Your task to perform on an android device: all mails in gmail Image 0: 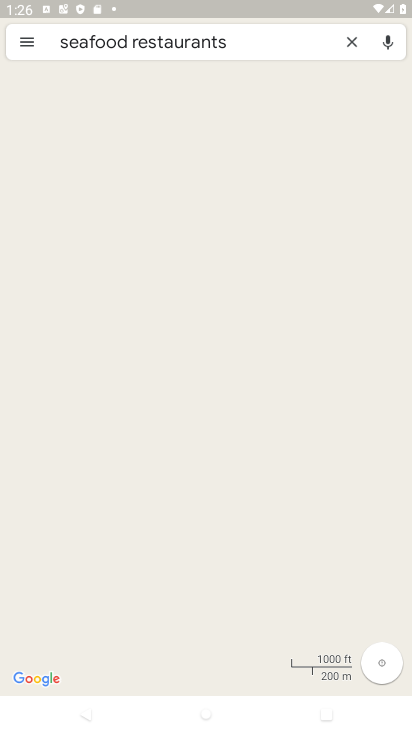
Step 0: press home button
Your task to perform on an android device: all mails in gmail Image 1: 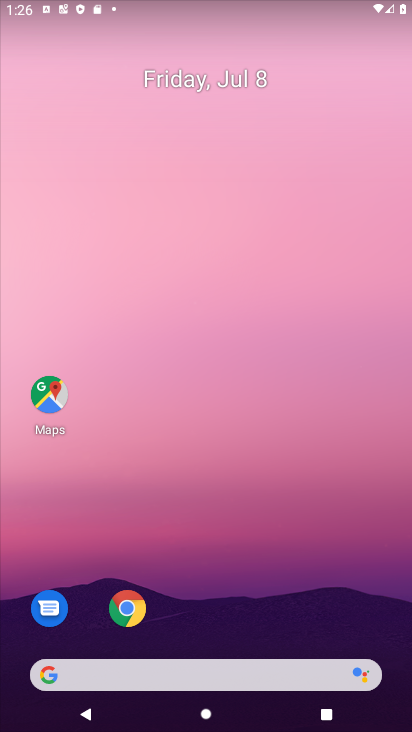
Step 1: drag from (384, 631) to (331, 140)
Your task to perform on an android device: all mails in gmail Image 2: 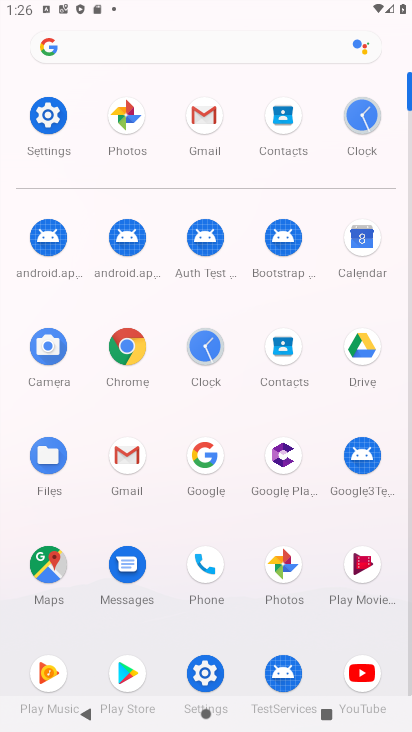
Step 2: click (124, 454)
Your task to perform on an android device: all mails in gmail Image 3: 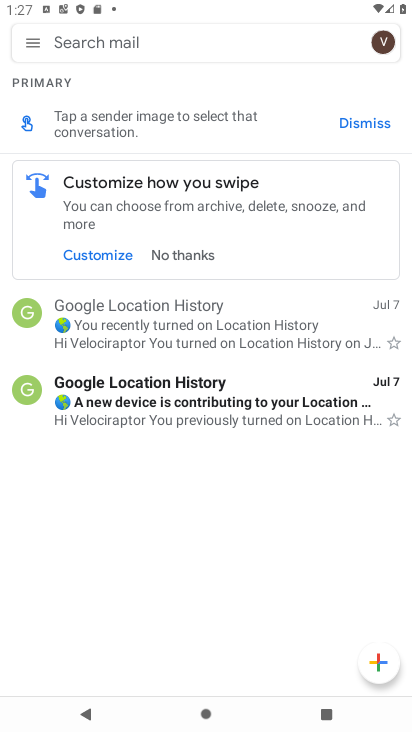
Step 3: click (31, 44)
Your task to perform on an android device: all mails in gmail Image 4: 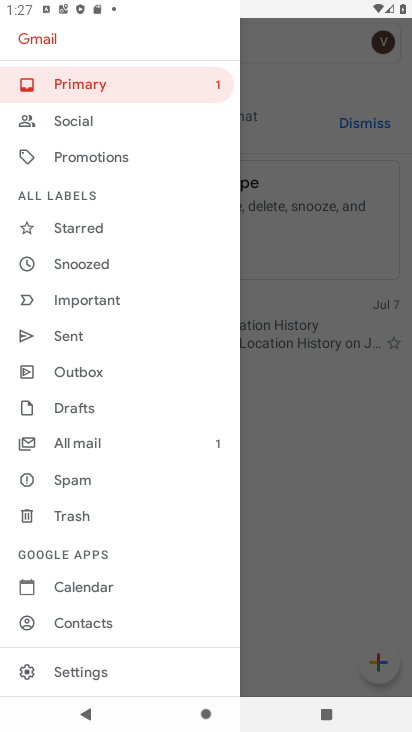
Step 4: click (76, 441)
Your task to perform on an android device: all mails in gmail Image 5: 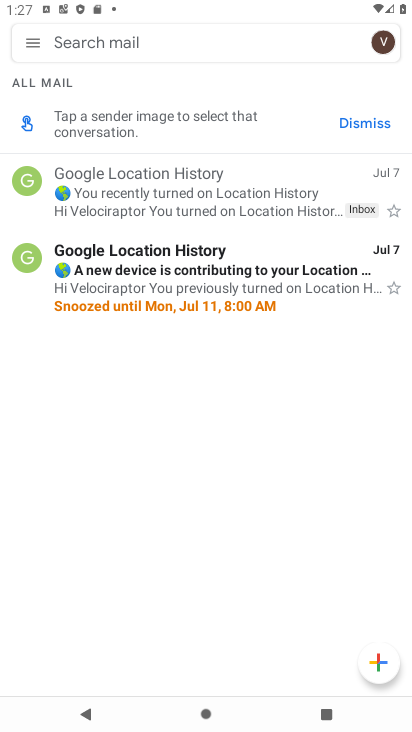
Step 5: task complete